Your task to perform on an android device: turn off airplane mode Image 0: 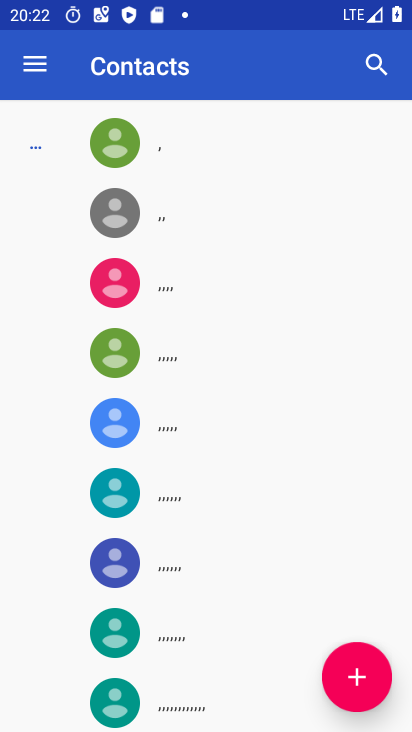
Step 0: drag from (251, 7) to (315, 541)
Your task to perform on an android device: turn off airplane mode Image 1: 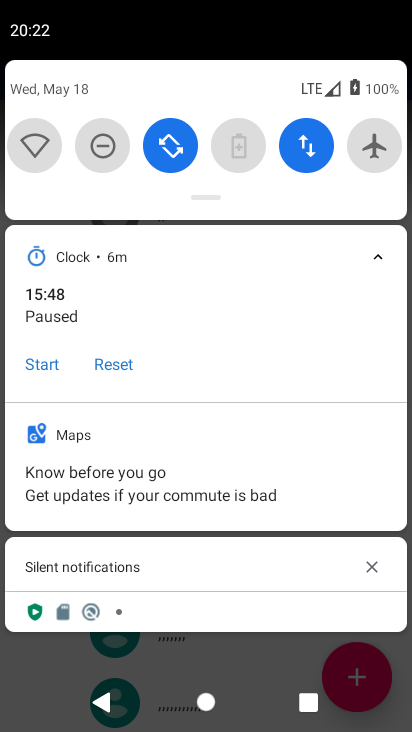
Step 1: task complete